Your task to perform on an android device: install app "PUBG MOBILE" Image 0: 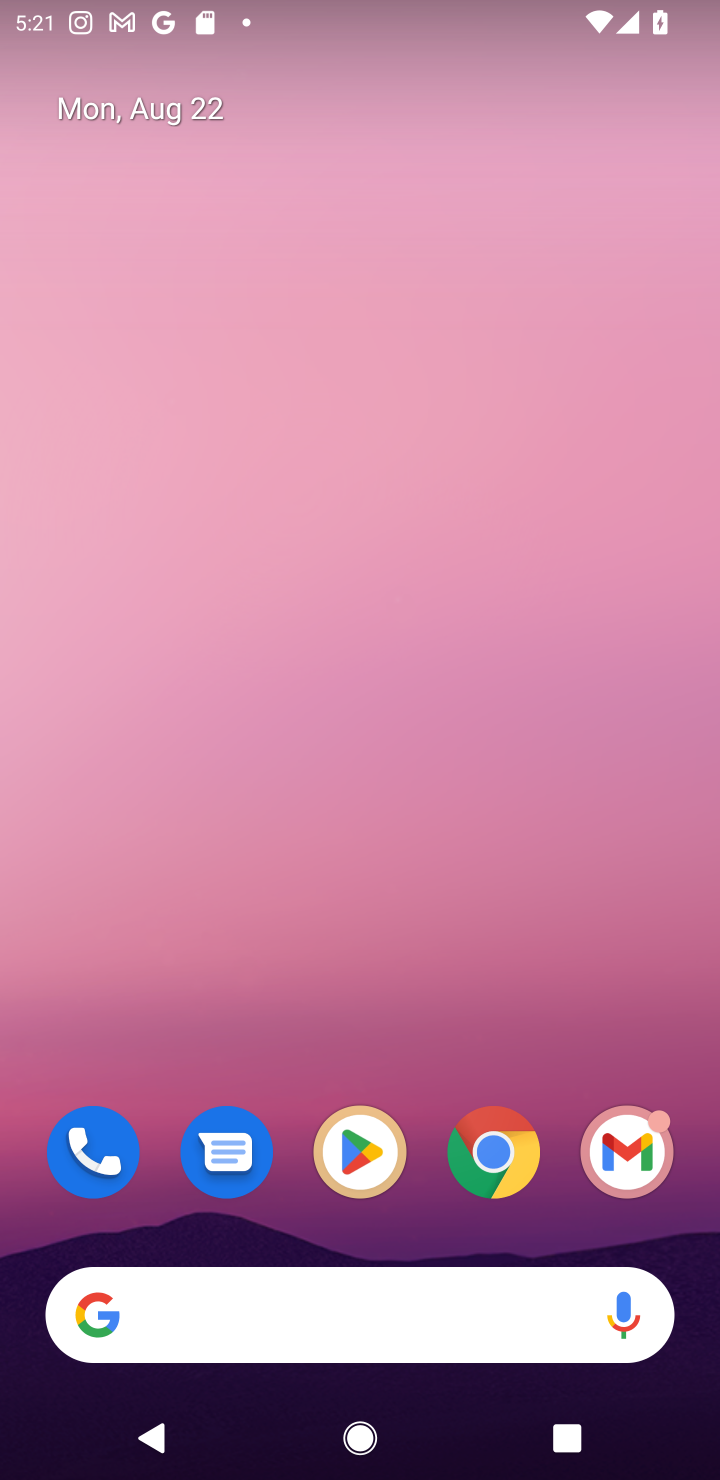
Step 0: click (348, 1153)
Your task to perform on an android device: install app "PUBG MOBILE" Image 1: 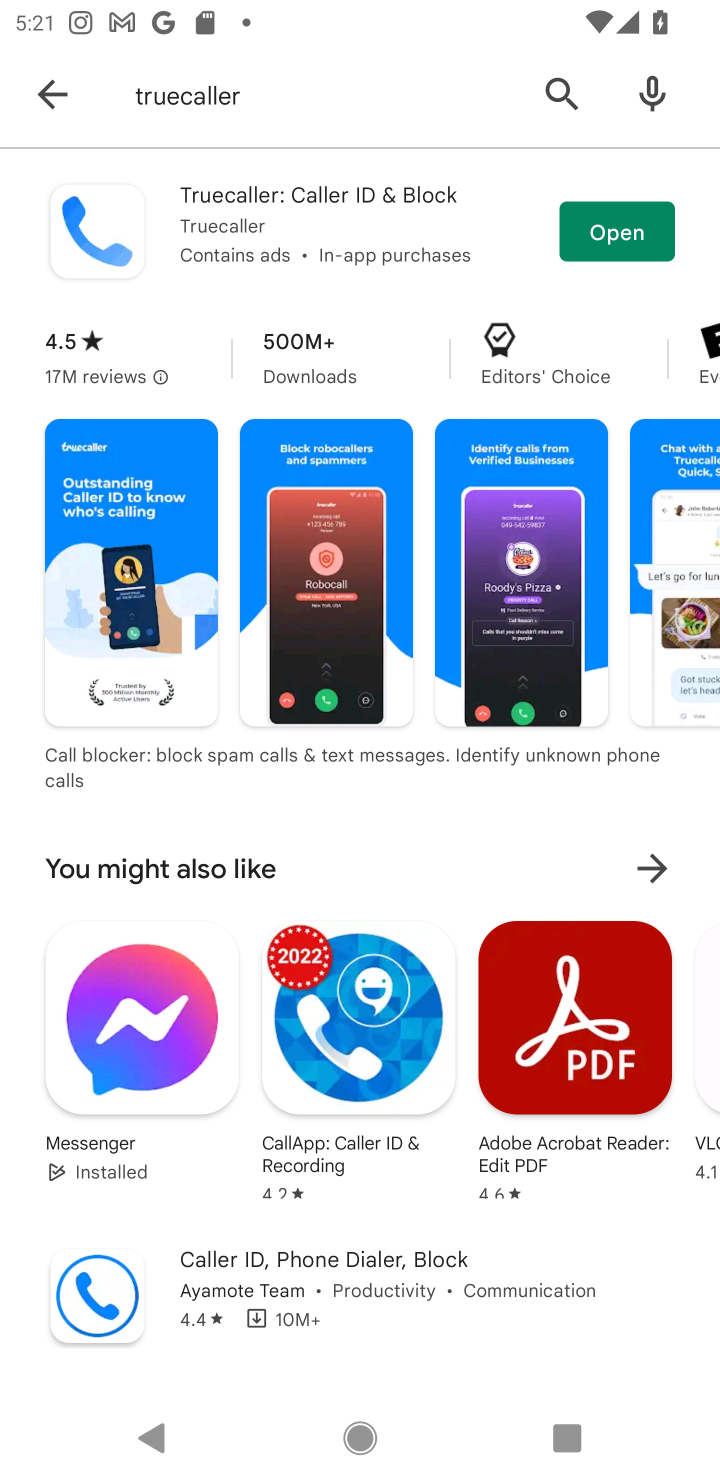
Step 1: click (22, 83)
Your task to perform on an android device: install app "PUBG MOBILE" Image 2: 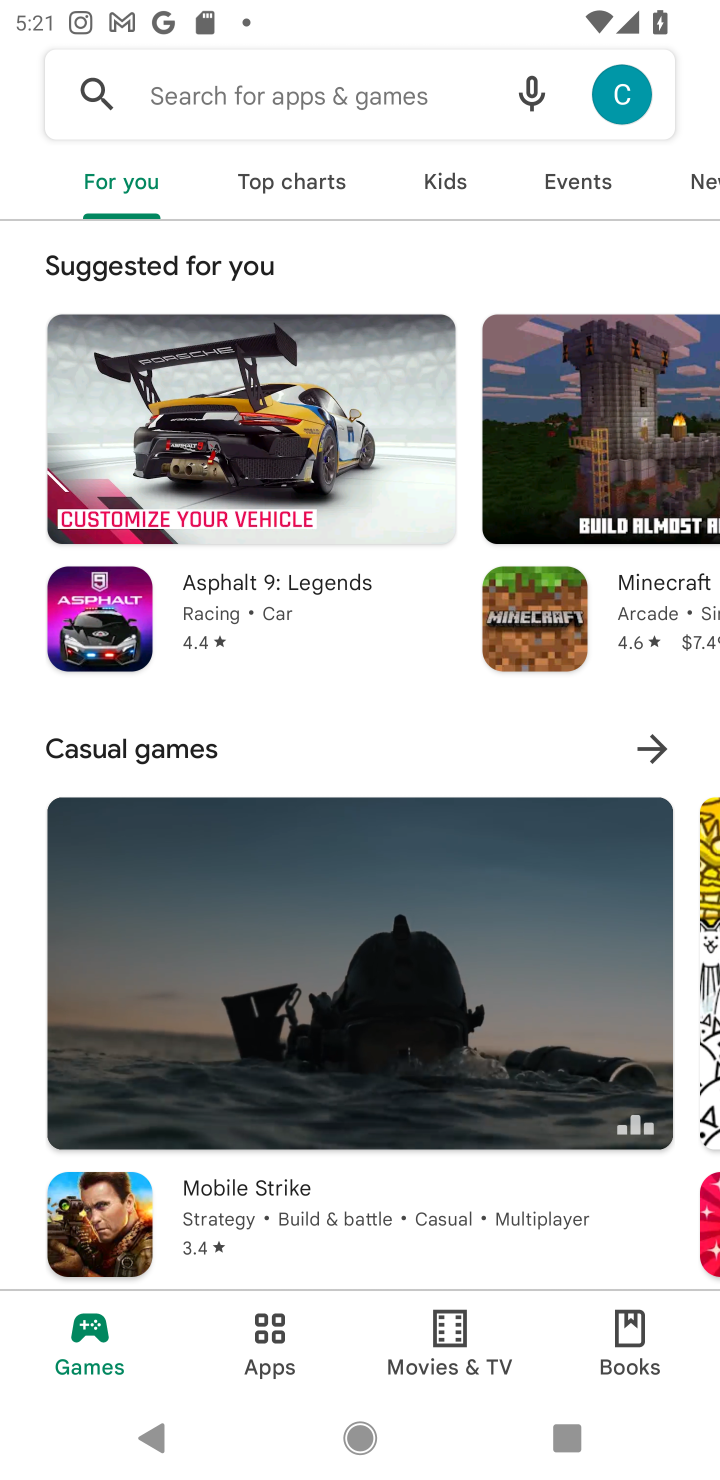
Step 2: click (169, 75)
Your task to perform on an android device: install app "PUBG MOBILE" Image 3: 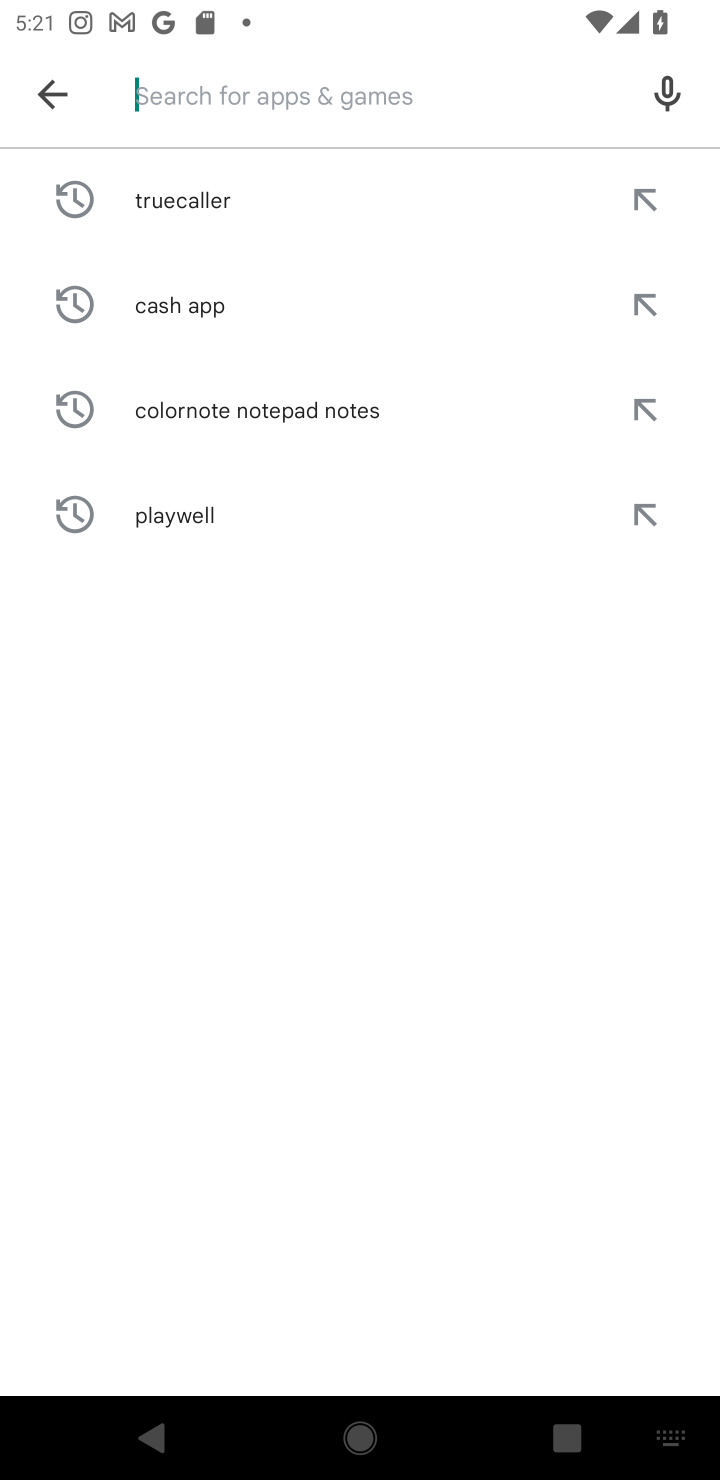
Step 3: type "PUBG MOBILE"
Your task to perform on an android device: install app "PUBG MOBILE" Image 4: 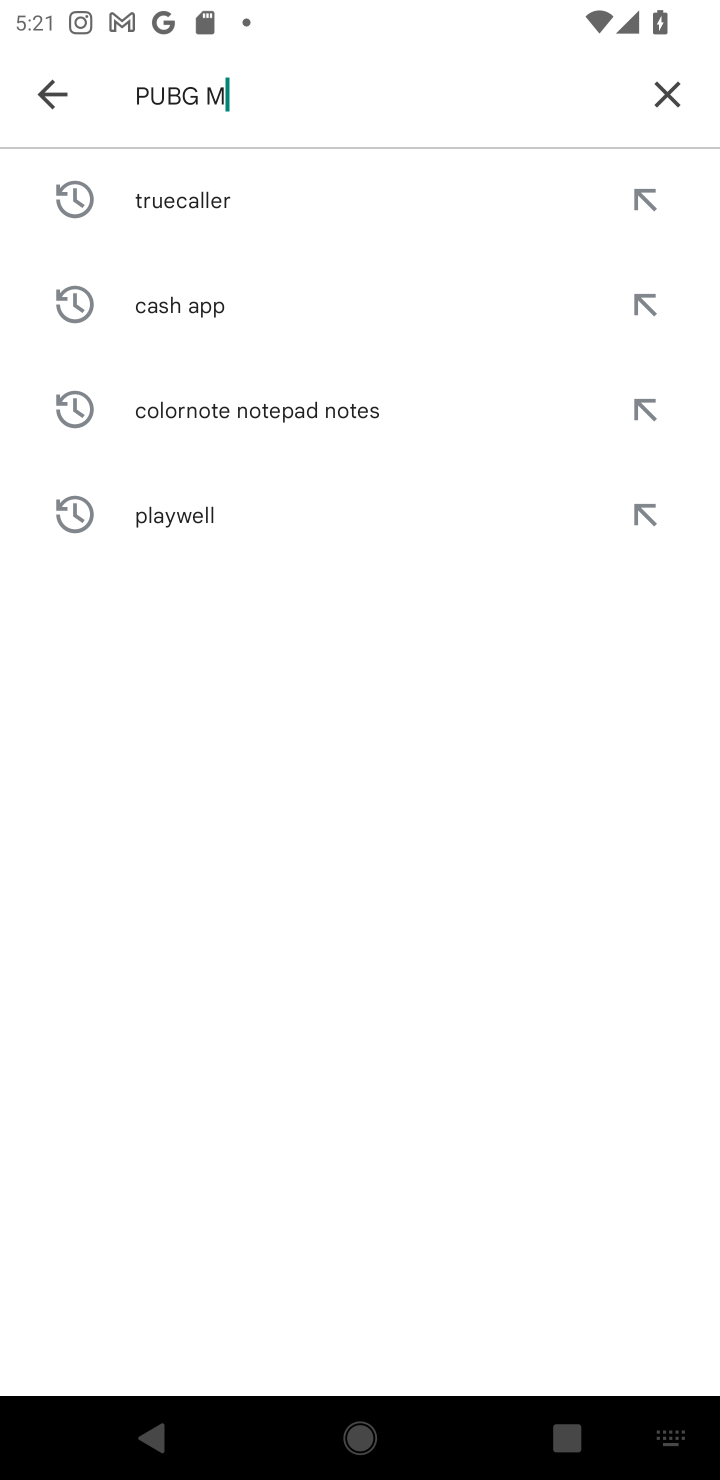
Step 4: type ""
Your task to perform on an android device: install app "PUBG MOBILE" Image 5: 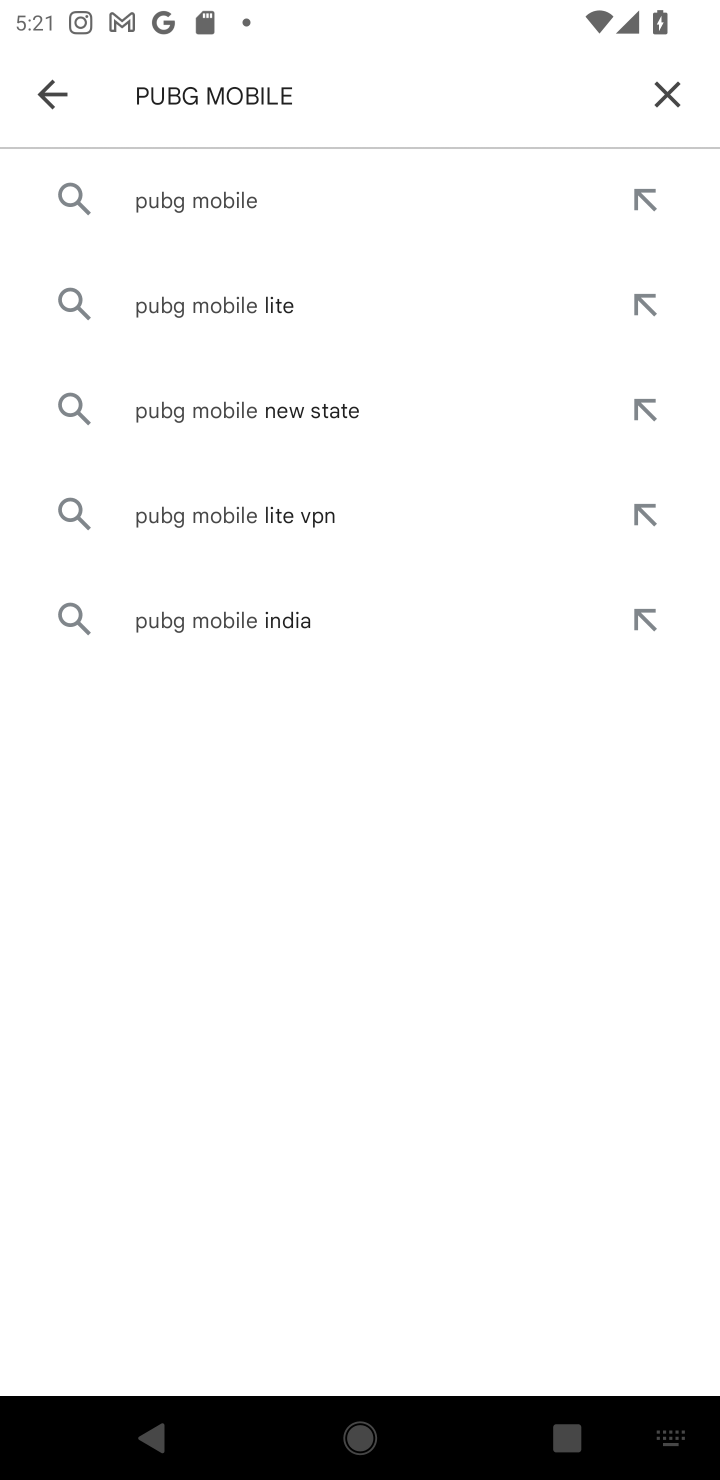
Step 5: click (172, 211)
Your task to perform on an android device: install app "PUBG MOBILE" Image 6: 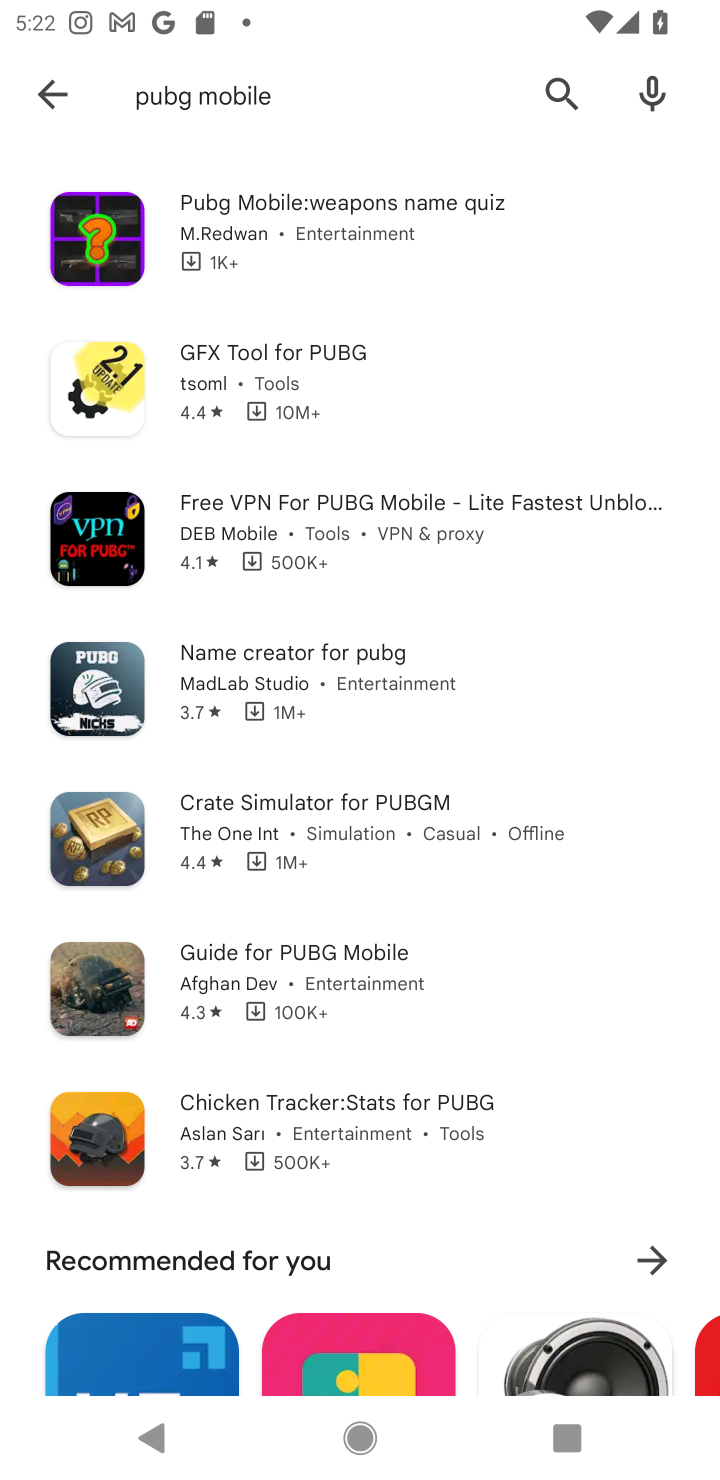
Step 6: task complete